Your task to perform on an android device: Open Amazon Image 0: 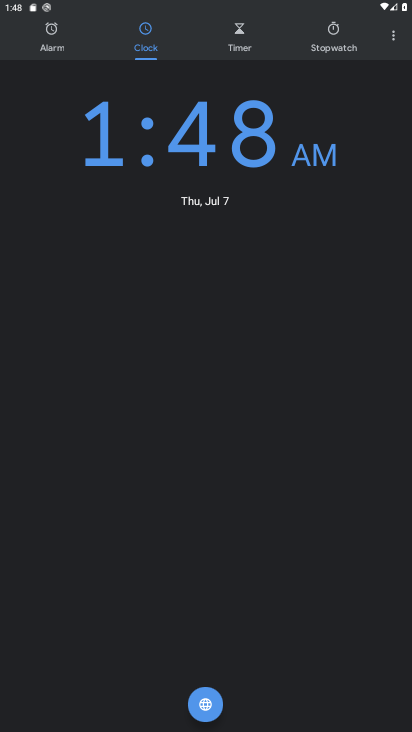
Step 0: press home button
Your task to perform on an android device: Open Amazon Image 1: 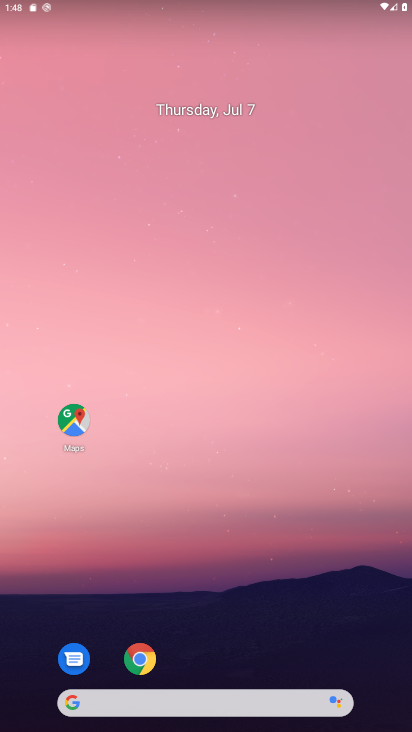
Step 1: click (137, 655)
Your task to perform on an android device: Open Amazon Image 2: 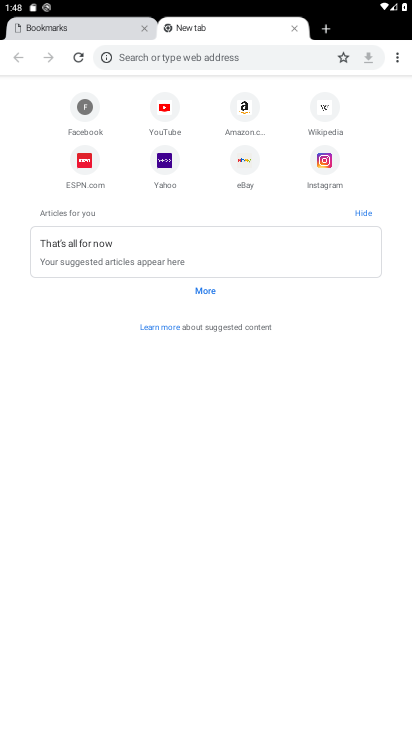
Step 2: click (235, 106)
Your task to perform on an android device: Open Amazon Image 3: 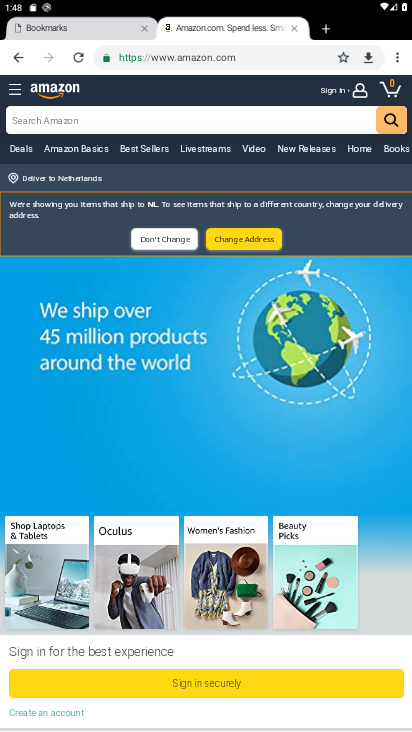
Step 3: task complete